Your task to perform on an android device: delete a single message in the gmail app Image 0: 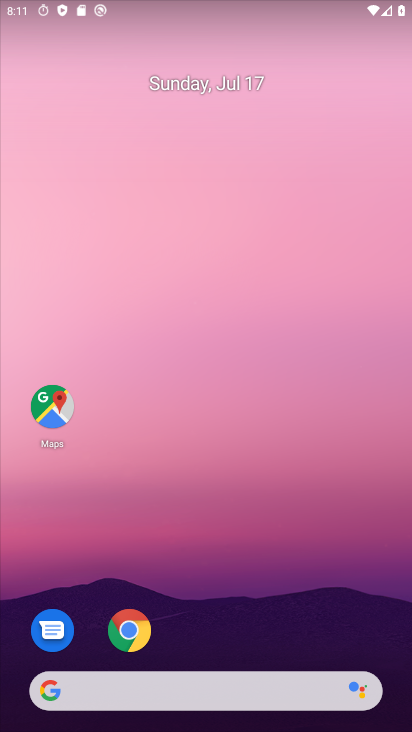
Step 0: drag from (10, 704) to (224, 124)
Your task to perform on an android device: delete a single message in the gmail app Image 1: 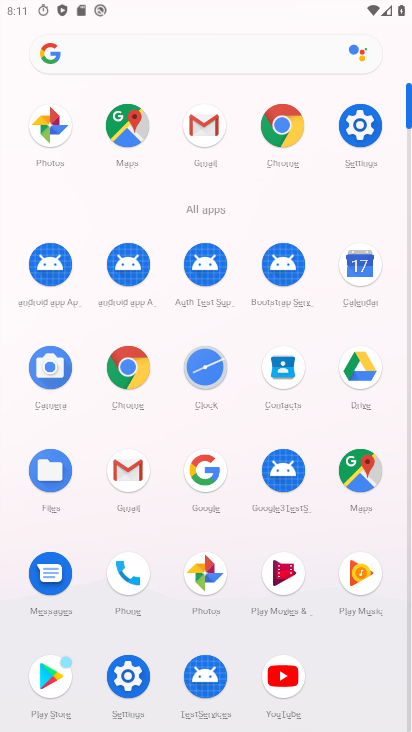
Step 1: click (121, 464)
Your task to perform on an android device: delete a single message in the gmail app Image 2: 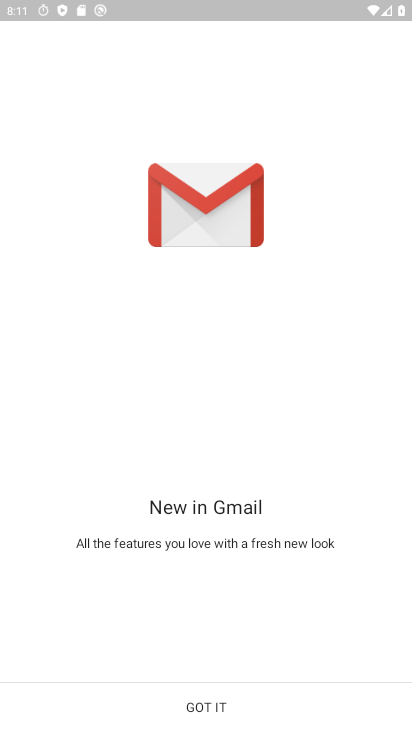
Step 2: click (212, 705)
Your task to perform on an android device: delete a single message in the gmail app Image 3: 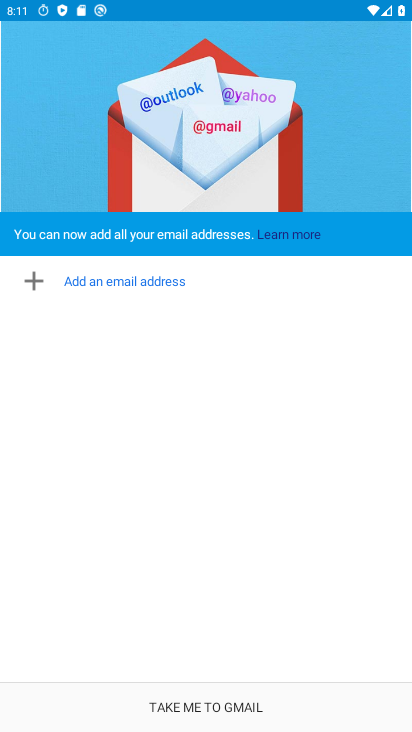
Step 3: click (214, 697)
Your task to perform on an android device: delete a single message in the gmail app Image 4: 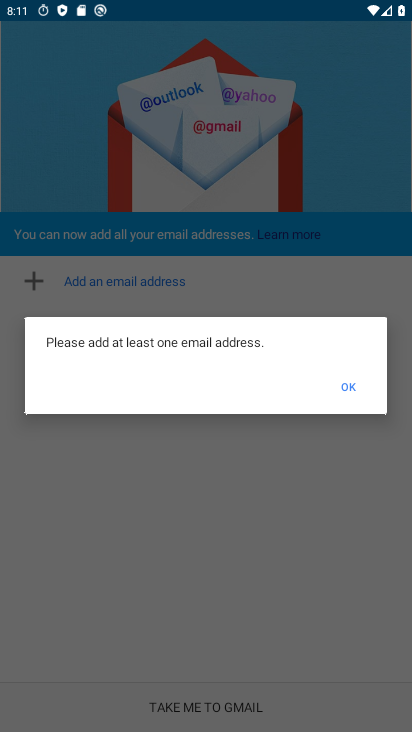
Step 4: click (350, 389)
Your task to perform on an android device: delete a single message in the gmail app Image 5: 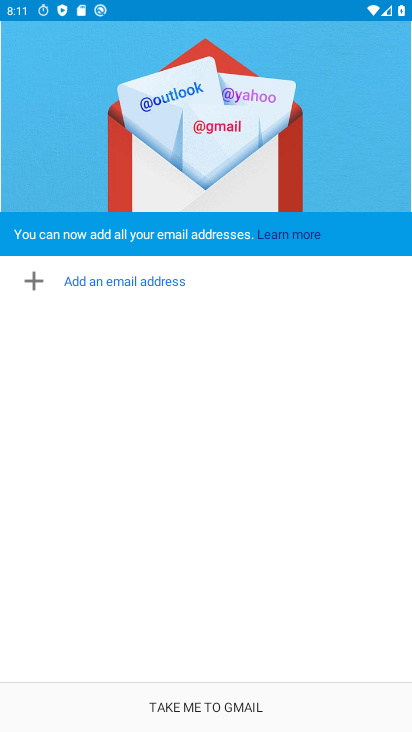
Step 5: click (216, 705)
Your task to perform on an android device: delete a single message in the gmail app Image 6: 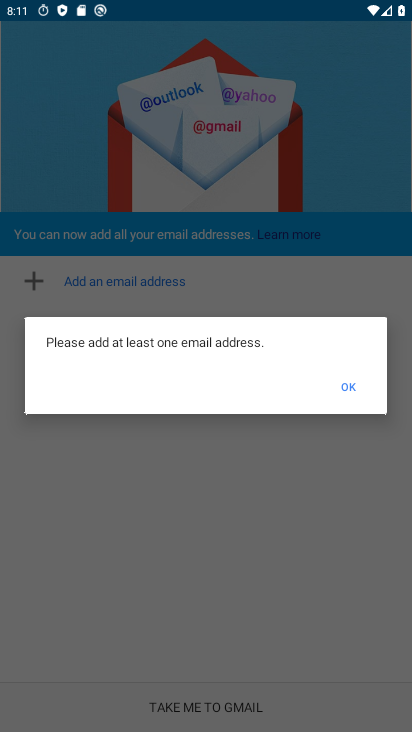
Step 6: click (361, 386)
Your task to perform on an android device: delete a single message in the gmail app Image 7: 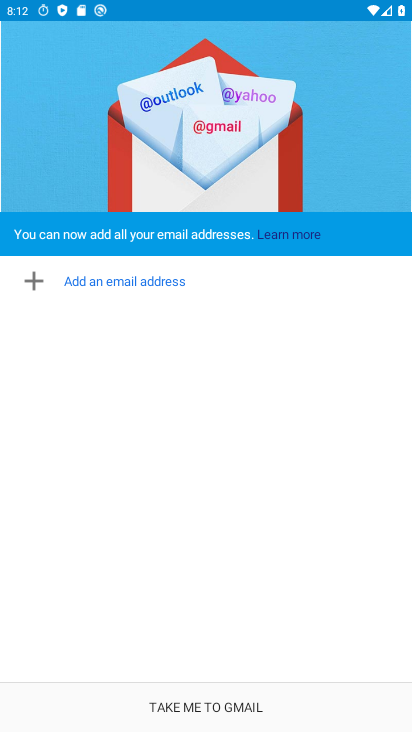
Step 7: click (188, 697)
Your task to perform on an android device: delete a single message in the gmail app Image 8: 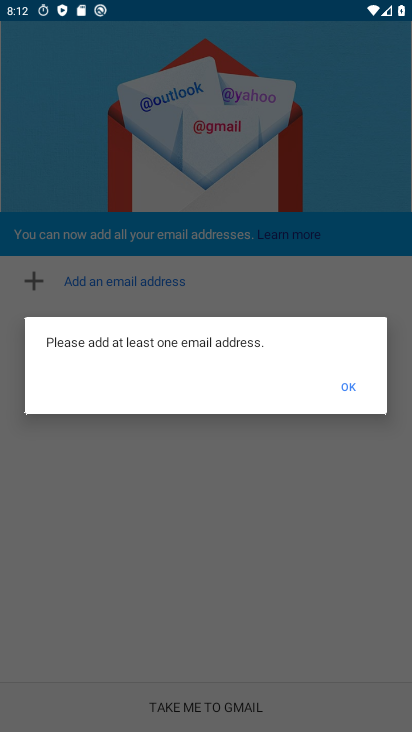
Step 8: click (350, 393)
Your task to perform on an android device: delete a single message in the gmail app Image 9: 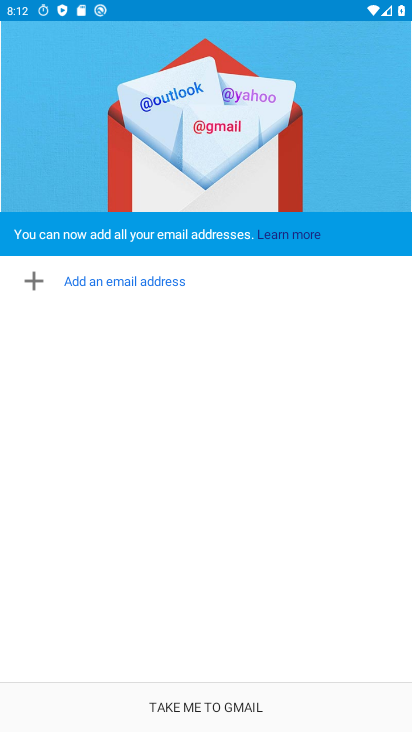
Step 9: task complete